Your task to perform on an android device: turn notification dots off Image 0: 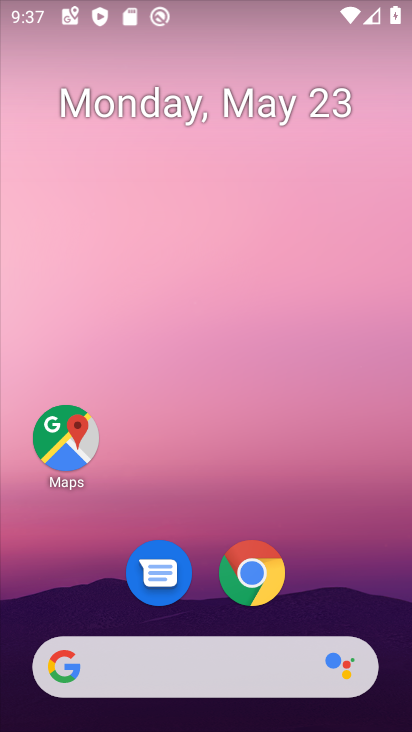
Step 0: drag from (360, 577) to (365, 145)
Your task to perform on an android device: turn notification dots off Image 1: 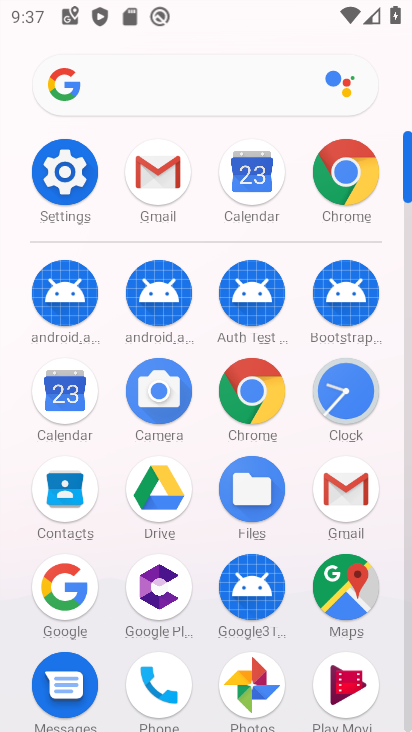
Step 1: click (66, 173)
Your task to perform on an android device: turn notification dots off Image 2: 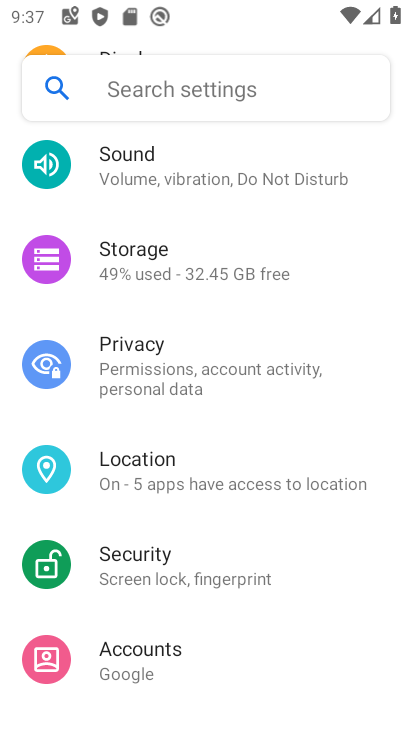
Step 2: drag from (345, 246) to (355, 368)
Your task to perform on an android device: turn notification dots off Image 3: 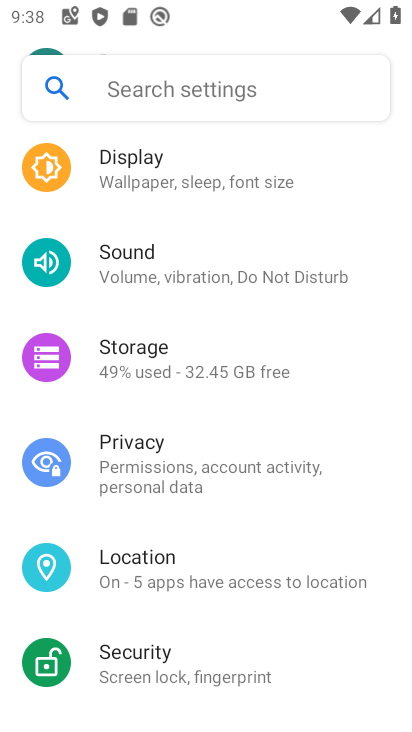
Step 3: drag from (360, 234) to (350, 362)
Your task to perform on an android device: turn notification dots off Image 4: 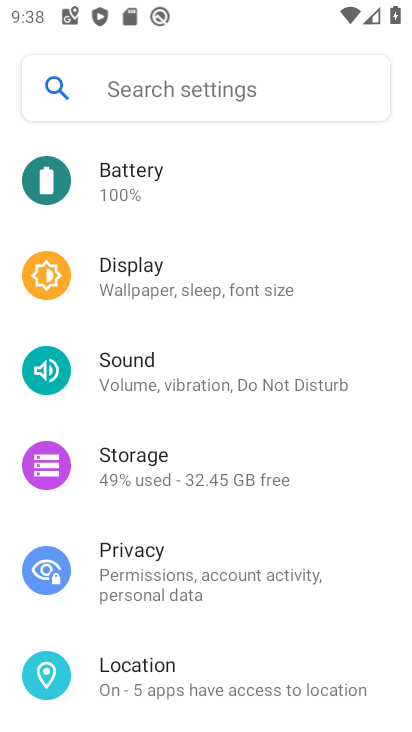
Step 4: drag from (348, 257) to (350, 365)
Your task to perform on an android device: turn notification dots off Image 5: 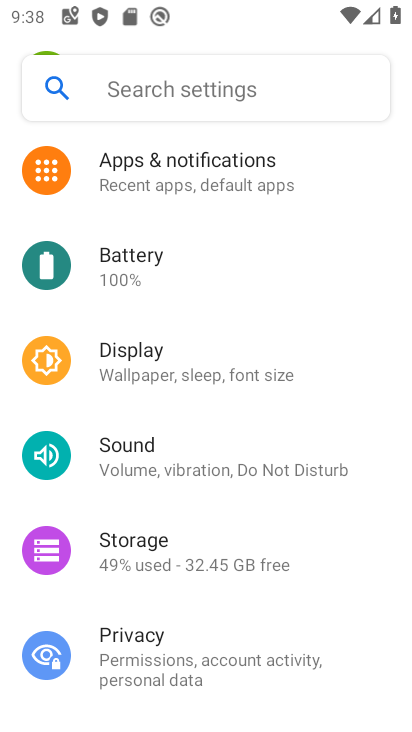
Step 5: drag from (360, 219) to (353, 343)
Your task to perform on an android device: turn notification dots off Image 6: 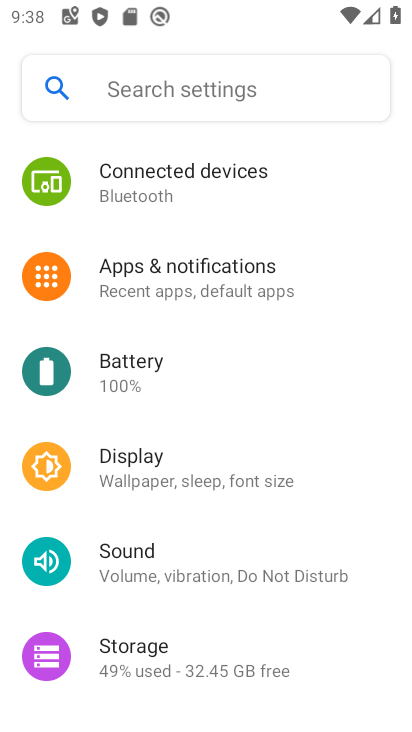
Step 6: click (271, 263)
Your task to perform on an android device: turn notification dots off Image 7: 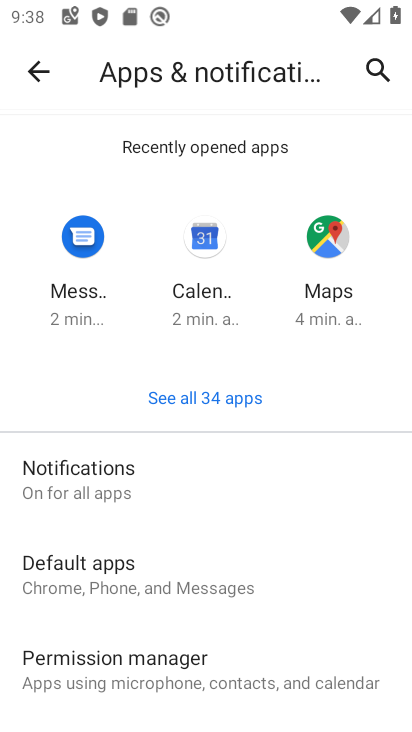
Step 7: drag from (351, 559) to (362, 468)
Your task to perform on an android device: turn notification dots off Image 8: 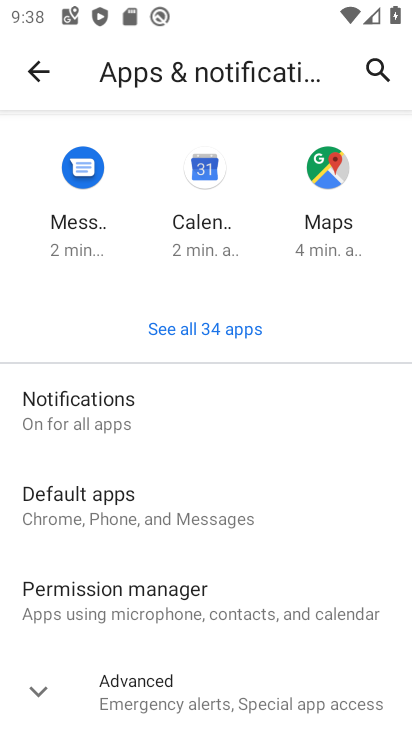
Step 8: click (142, 416)
Your task to perform on an android device: turn notification dots off Image 9: 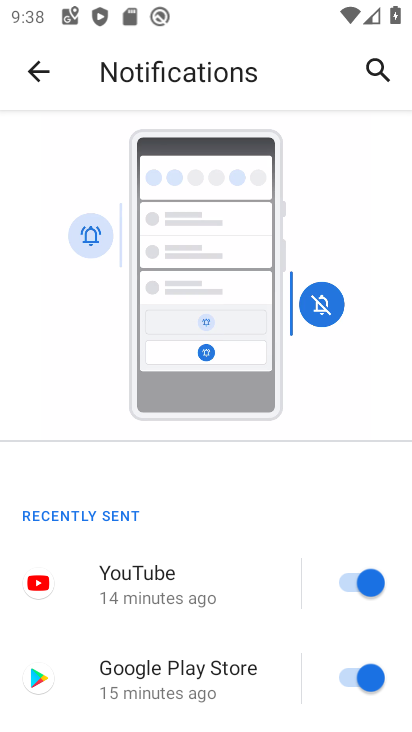
Step 9: drag from (280, 609) to (277, 495)
Your task to perform on an android device: turn notification dots off Image 10: 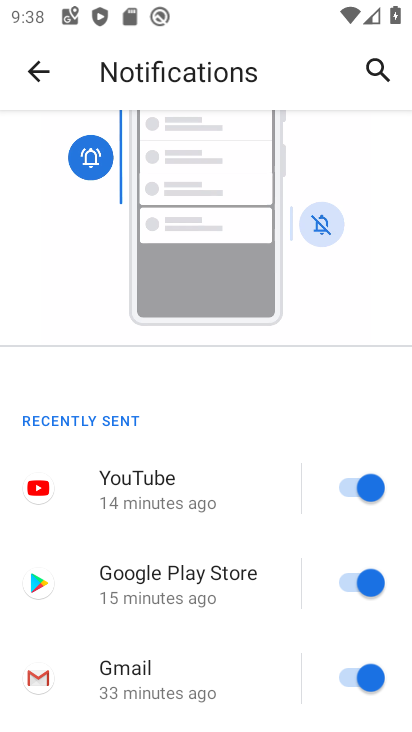
Step 10: drag from (268, 636) to (282, 459)
Your task to perform on an android device: turn notification dots off Image 11: 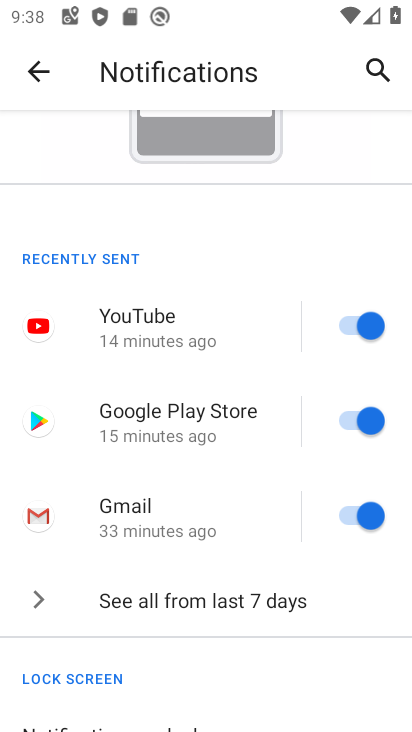
Step 11: drag from (299, 591) to (277, 439)
Your task to perform on an android device: turn notification dots off Image 12: 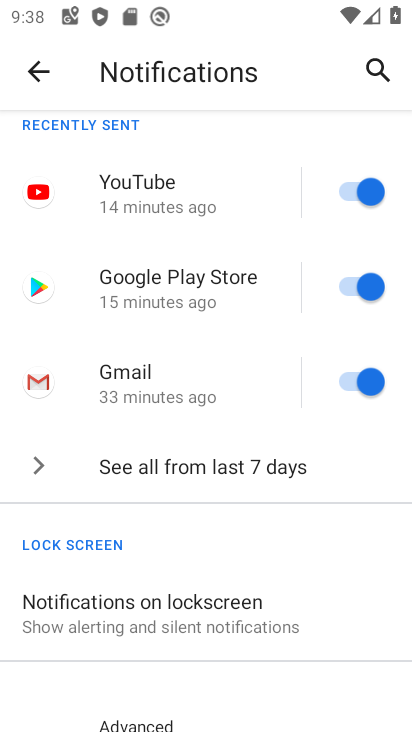
Step 12: drag from (316, 634) to (307, 504)
Your task to perform on an android device: turn notification dots off Image 13: 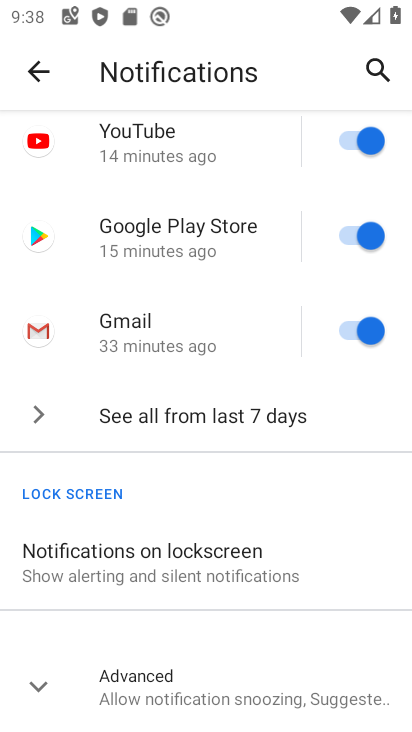
Step 13: click (296, 680)
Your task to perform on an android device: turn notification dots off Image 14: 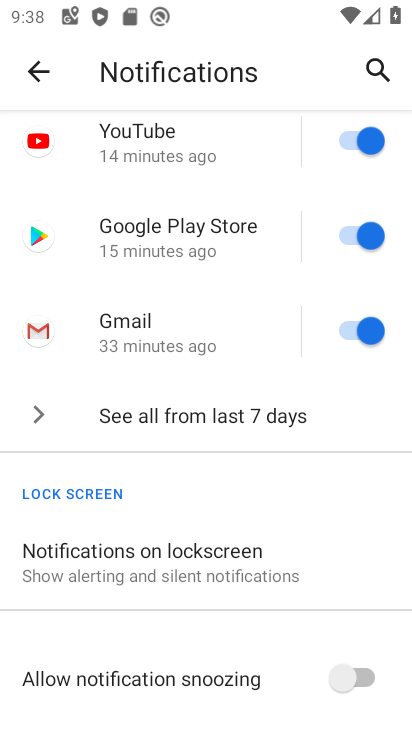
Step 14: task complete